Your task to perform on an android device: check data usage Image 0: 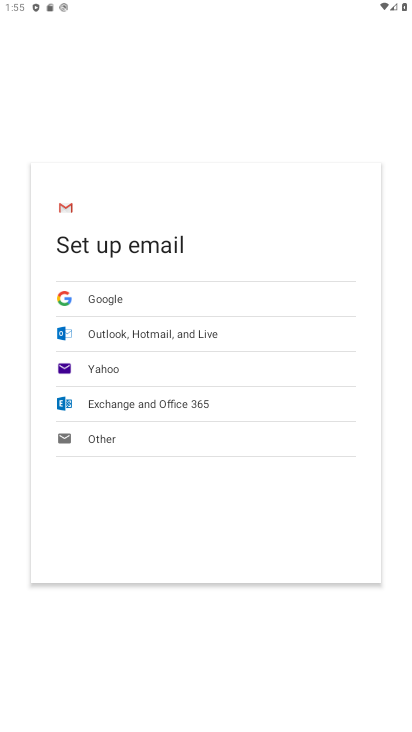
Step 0: press home button
Your task to perform on an android device: check data usage Image 1: 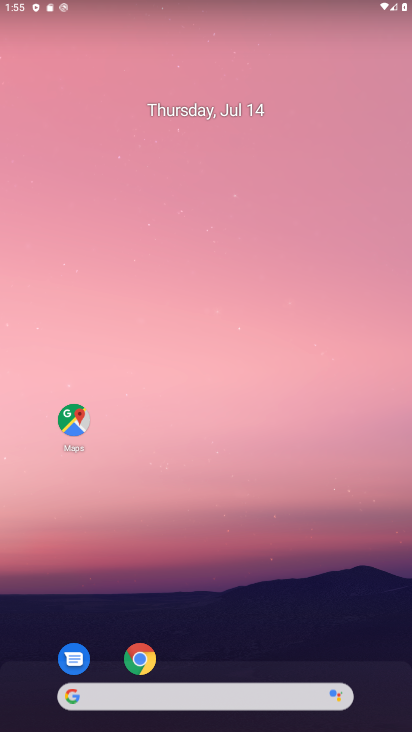
Step 1: drag from (232, 347) to (215, 142)
Your task to perform on an android device: check data usage Image 2: 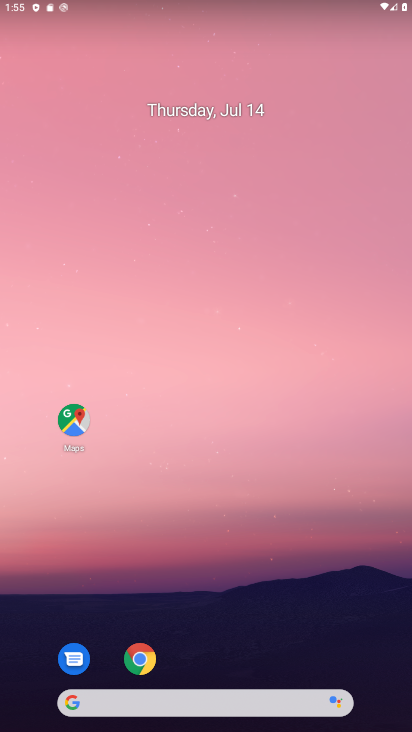
Step 2: drag from (367, 657) to (303, 244)
Your task to perform on an android device: check data usage Image 3: 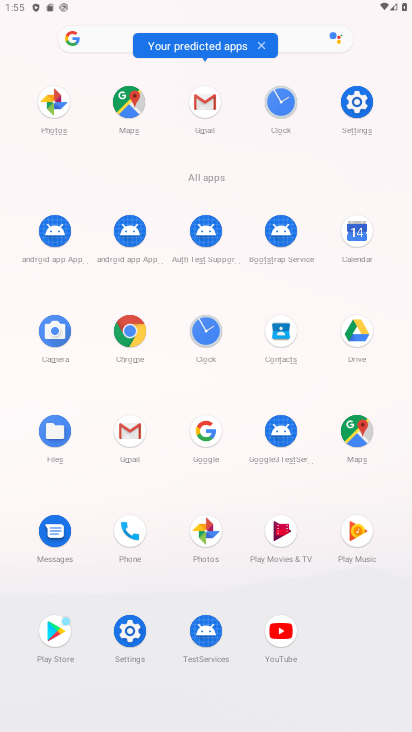
Step 3: click (363, 99)
Your task to perform on an android device: check data usage Image 4: 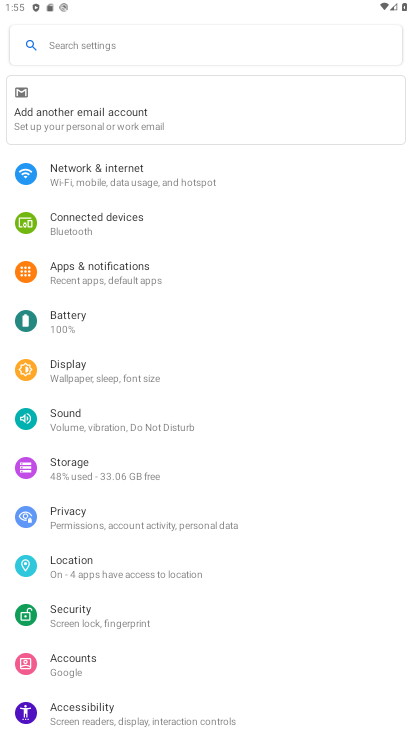
Step 4: click (210, 176)
Your task to perform on an android device: check data usage Image 5: 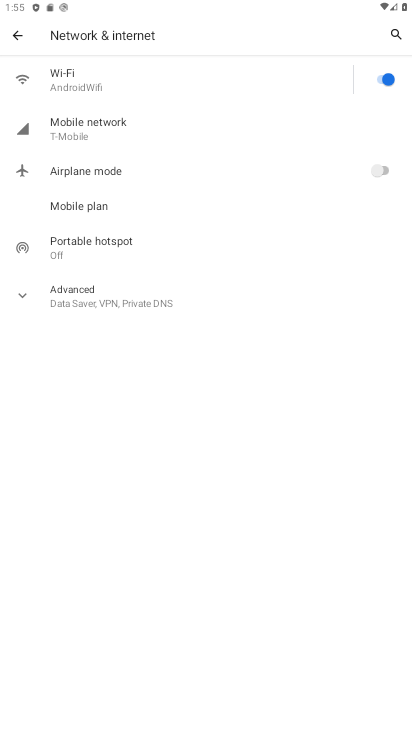
Step 5: click (153, 83)
Your task to perform on an android device: check data usage Image 6: 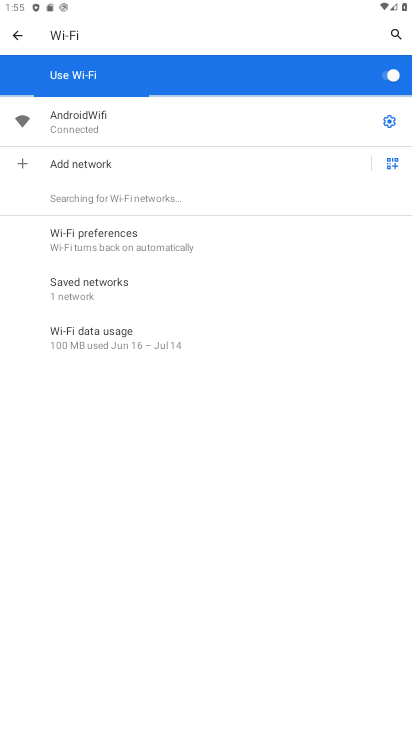
Step 6: click (163, 335)
Your task to perform on an android device: check data usage Image 7: 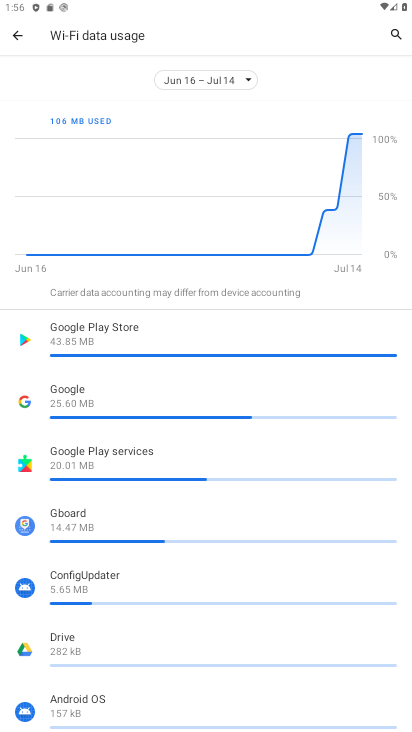
Step 7: task complete